Your task to perform on an android device: Search for dining sets on article.com Image 0: 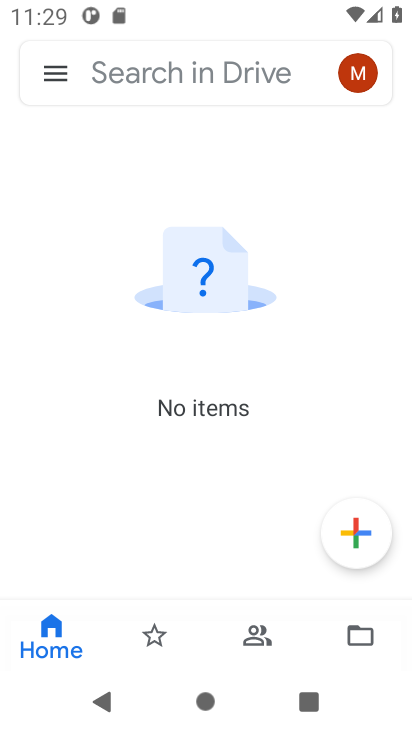
Step 0: press home button
Your task to perform on an android device: Search for dining sets on article.com Image 1: 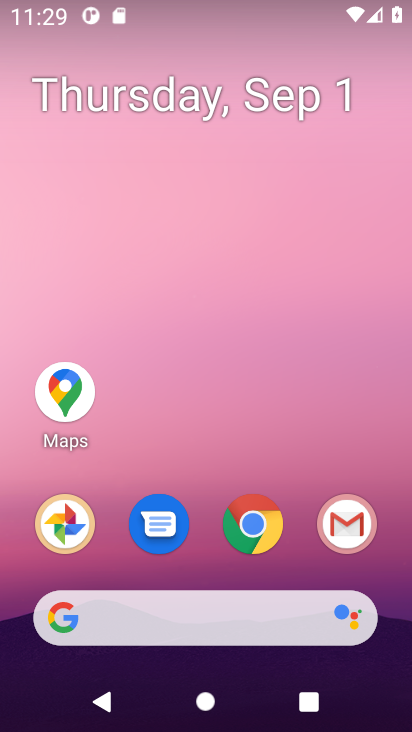
Step 1: click (250, 613)
Your task to perform on an android device: Search for dining sets on article.com Image 2: 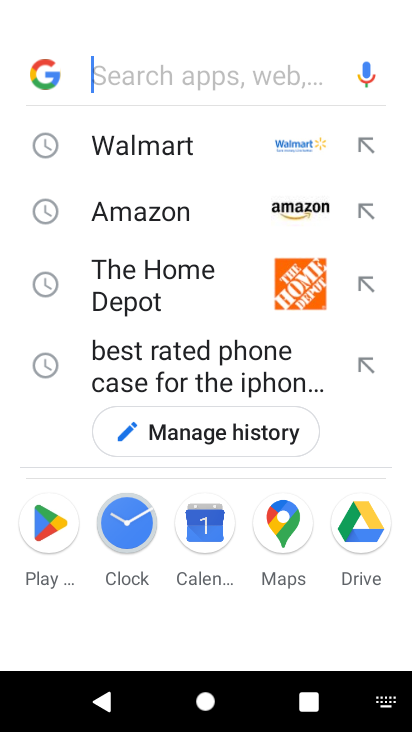
Step 2: press enter
Your task to perform on an android device: Search for dining sets on article.com Image 3: 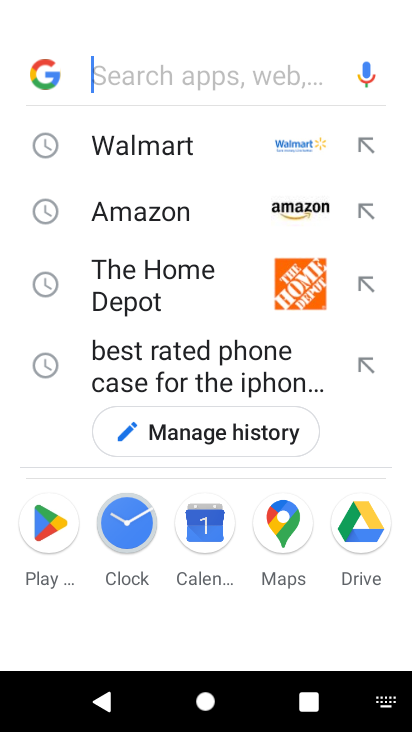
Step 3: type "article.com"
Your task to perform on an android device: Search for dining sets on article.com Image 4: 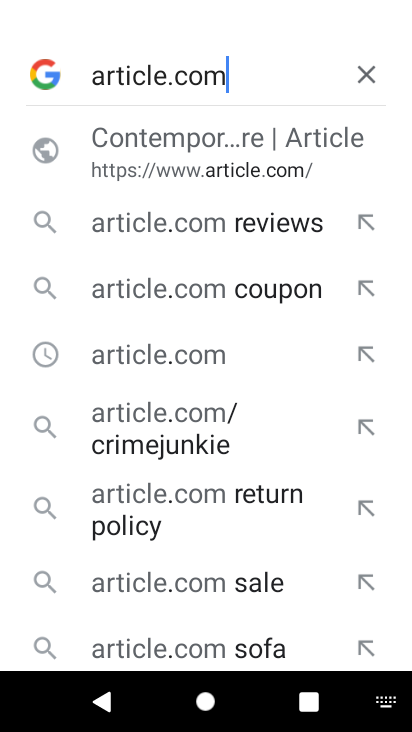
Step 4: click (208, 149)
Your task to perform on an android device: Search for dining sets on article.com Image 5: 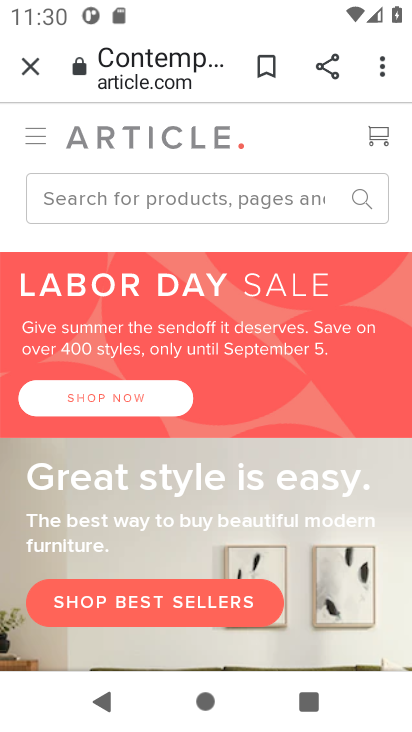
Step 5: click (254, 204)
Your task to perform on an android device: Search for dining sets on article.com Image 6: 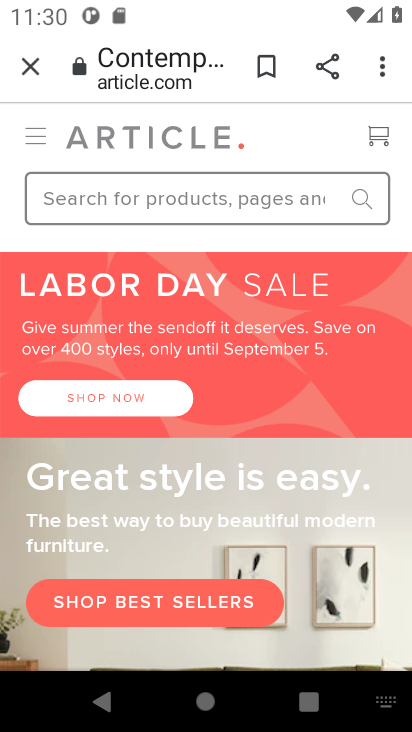
Step 6: press enter
Your task to perform on an android device: Search for dining sets on article.com Image 7: 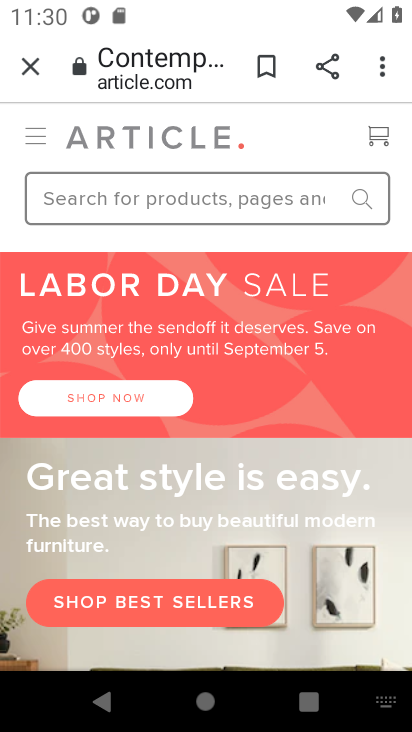
Step 7: type "dining sets"
Your task to perform on an android device: Search for dining sets on article.com Image 8: 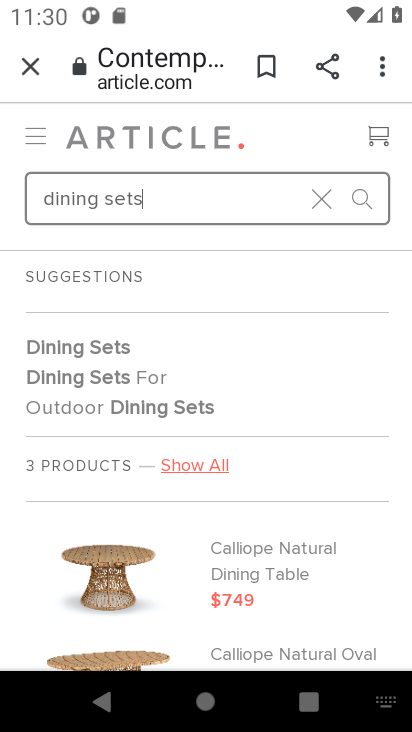
Step 8: click (102, 344)
Your task to perform on an android device: Search for dining sets on article.com Image 9: 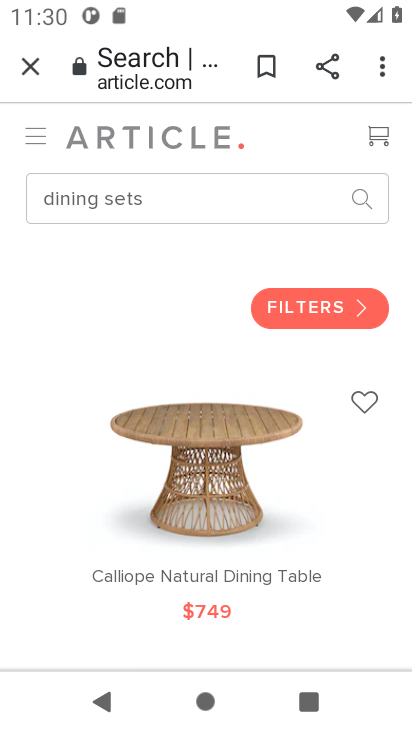
Step 9: task complete